Your task to perform on an android device: search for starred emails in the gmail app Image 0: 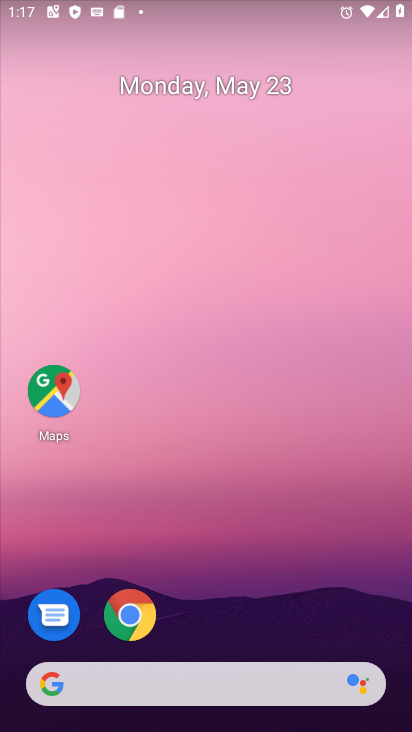
Step 0: drag from (184, 696) to (205, 1)
Your task to perform on an android device: search for starred emails in the gmail app Image 1: 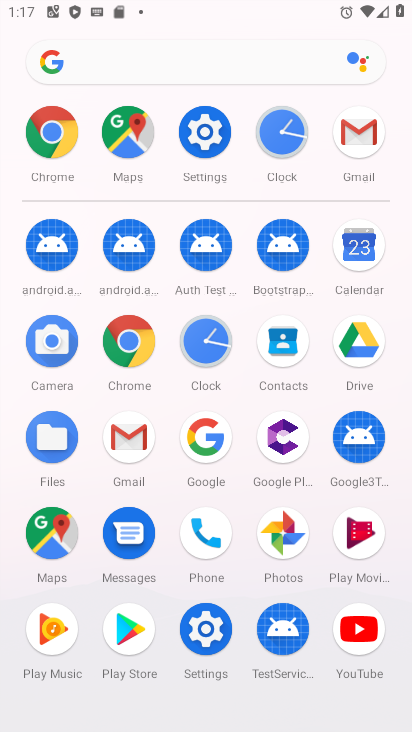
Step 1: click (131, 438)
Your task to perform on an android device: search for starred emails in the gmail app Image 2: 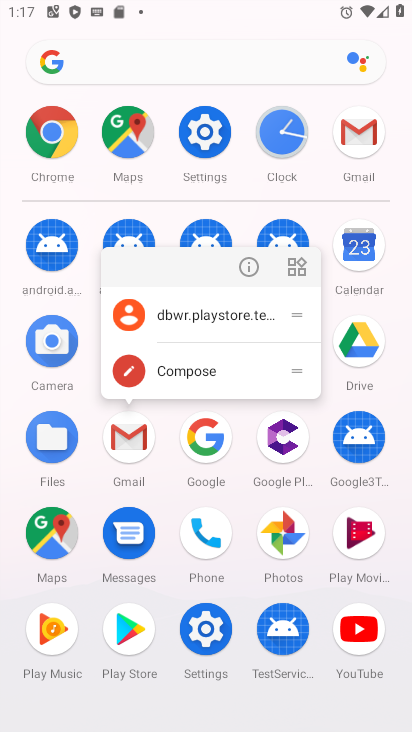
Step 2: click (126, 446)
Your task to perform on an android device: search for starred emails in the gmail app Image 3: 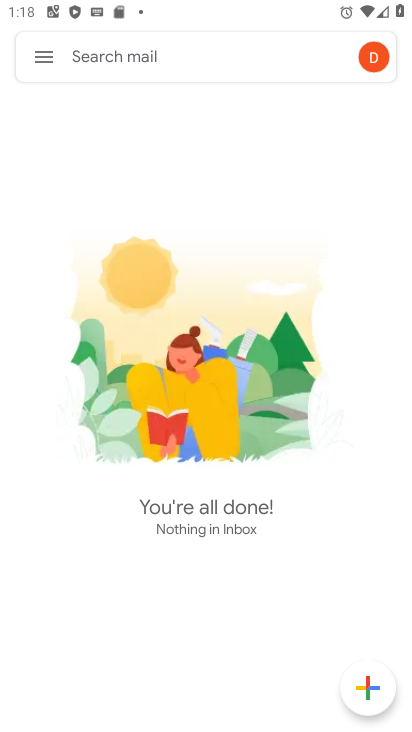
Step 3: click (48, 52)
Your task to perform on an android device: search for starred emails in the gmail app Image 4: 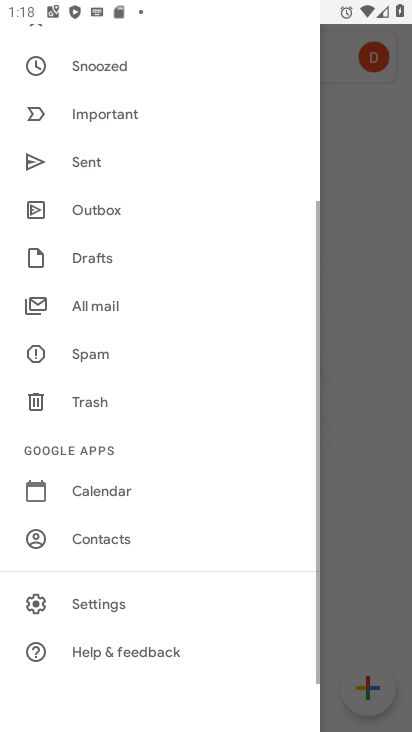
Step 4: drag from (100, 171) to (121, 480)
Your task to perform on an android device: search for starred emails in the gmail app Image 5: 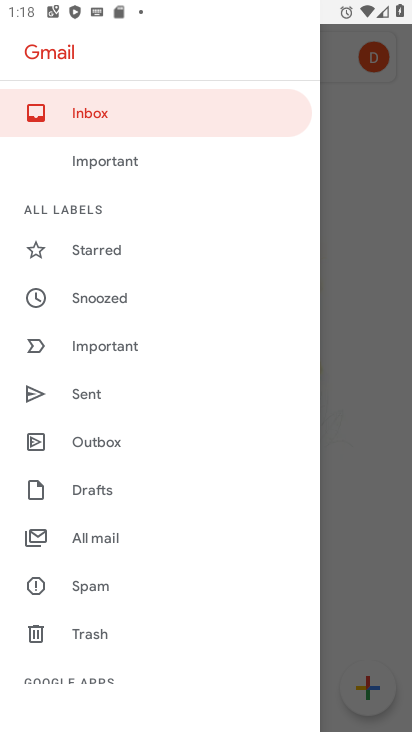
Step 5: click (81, 248)
Your task to perform on an android device: search for starred emails in the gmail app Image 6: 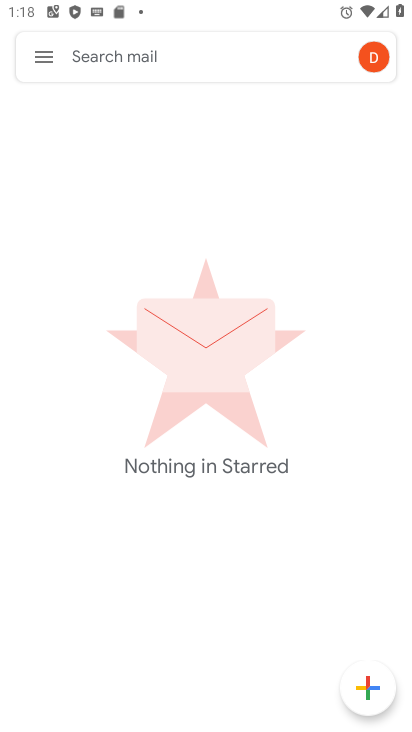
Step 6: task complete